Your task to perform on an android device: check android version Image 0: 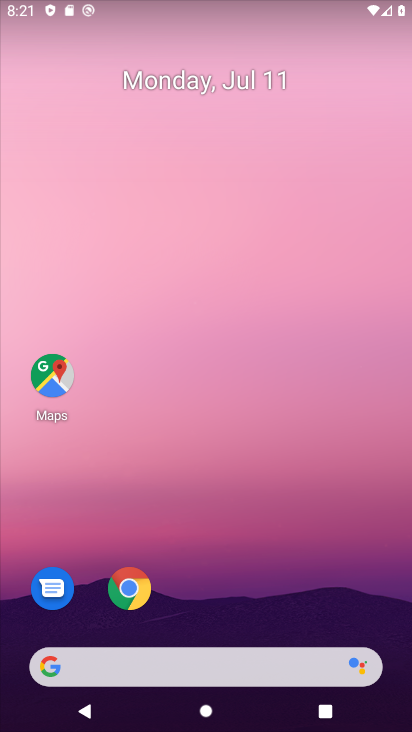
Step 0: drag from (164, 199) to (157, 163)
Your task to perform on an android device: check android version Image 1: 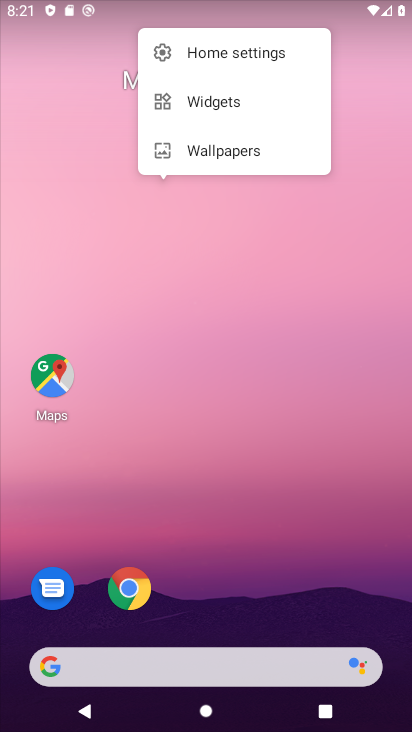
Step 1: drag from (249, 617) to (195, 214)
Your task to perform on an android device: check android version Image 2: 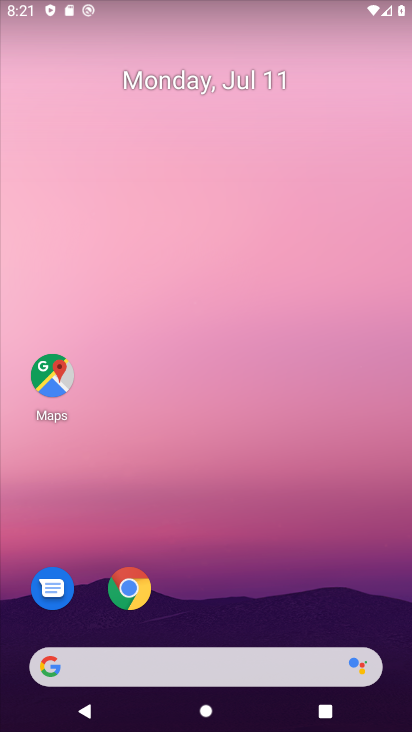
Step 2: drag from (396, 632) to (286, 253)
Your task to perform on an android device: check android version Image 3: 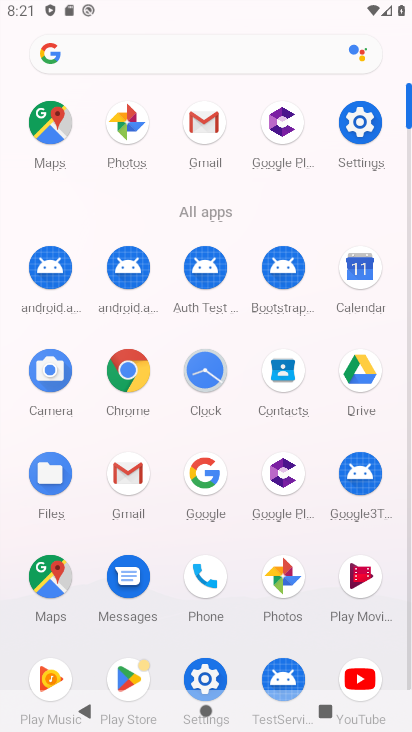
Step 3: click (364, 125)
Your task to perform on an android device: check android version Image 4: 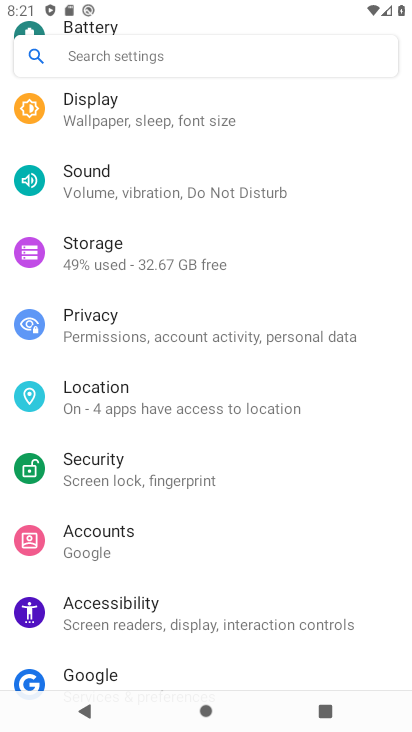
Step 4: drag from (292, 663) to (250, 166)
Your task to perform on an android device: check android version Image 5: 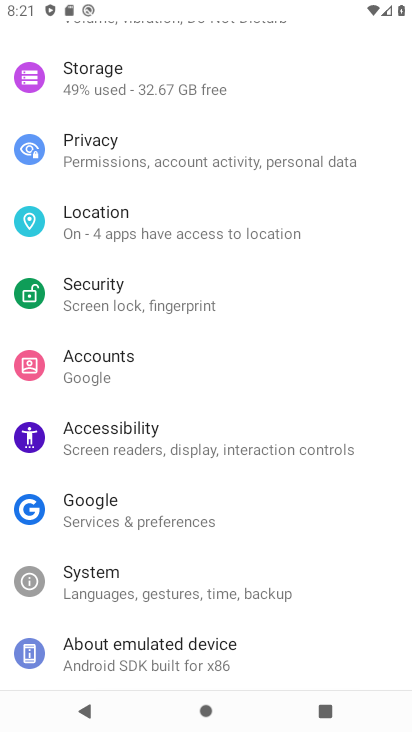
Step 5: click (381, 409)
Your task to perform on an android device: check android version Image 6: 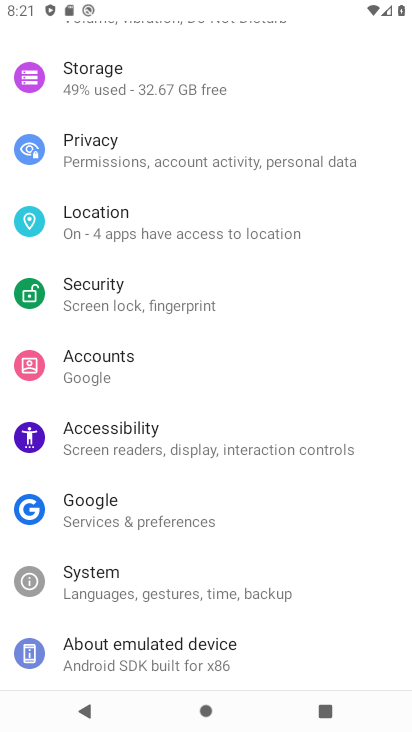
Step 6: click (227, 658)
Your task to perform on an android device: check android version Image 7: 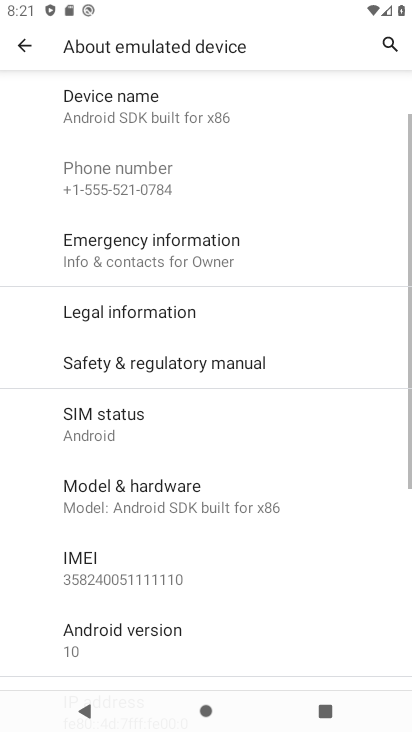
Step 7: click (220, 627)
Your task to perform on an android device: check android version Image 8: 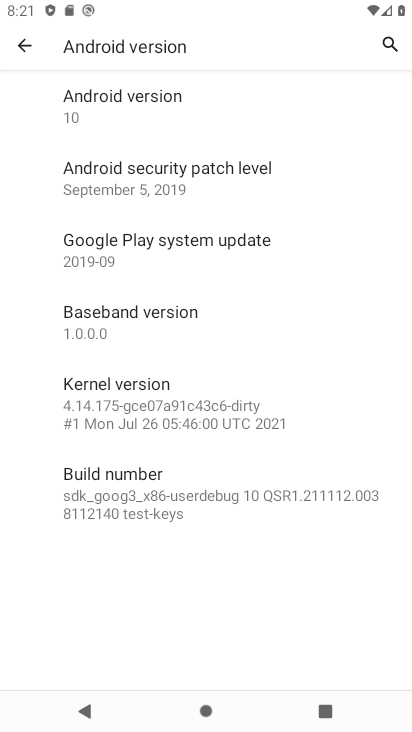
Step 8: task complete